Your task to perform on an android device: check the backup settings in the google photos Image 0: 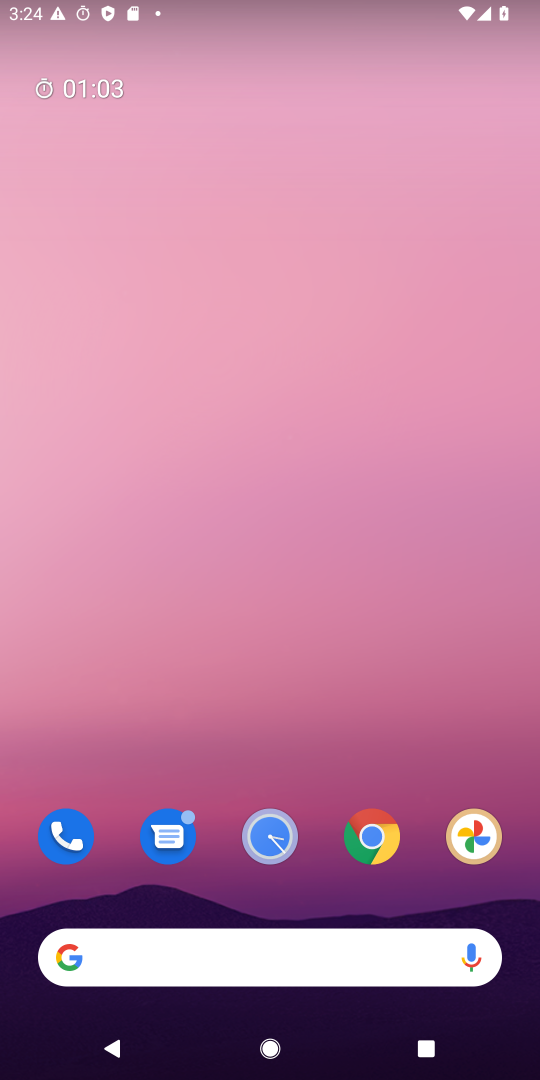
Step 0: drag from (220, 866) to (217, 31)
Your task to perform on an android device: check the backup settings in the google photos Image 1: 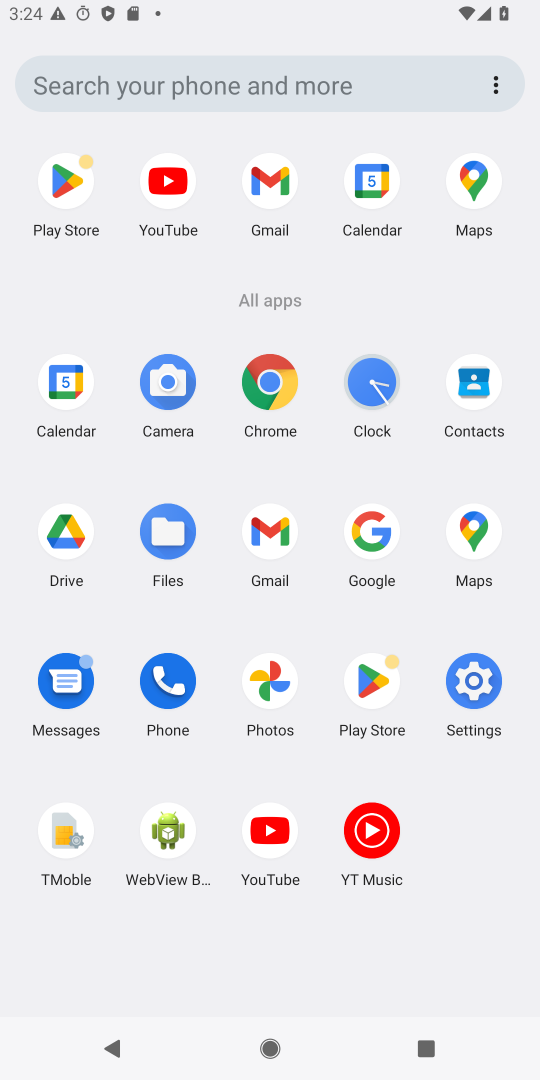
Step 1: click (268, 702)
Your task to perform on an android device: check the backup settings in the google photos Image 2: 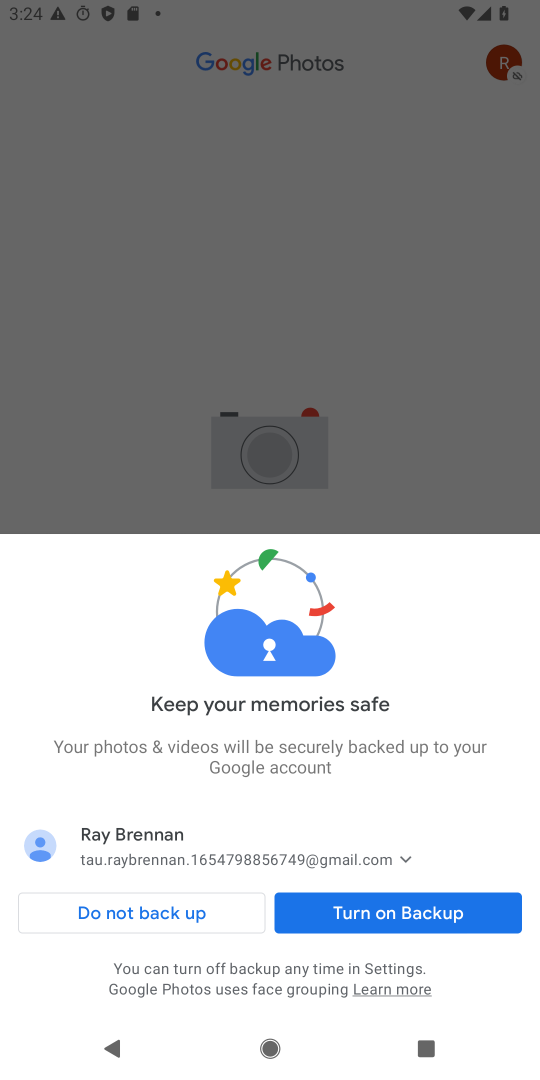
Step 2: click (341, 916)
Your task to perform on an android device: check the backup settings in the google photos Image 3: 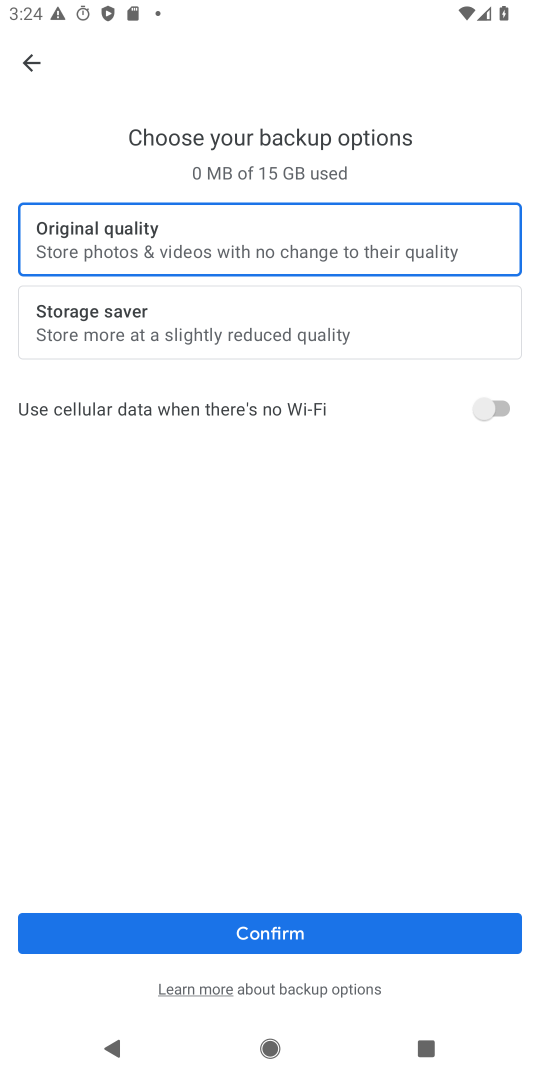
Step 3: click (315, 941)
Your task to perform on an android device: check the backup settings in the google photos Image 4: 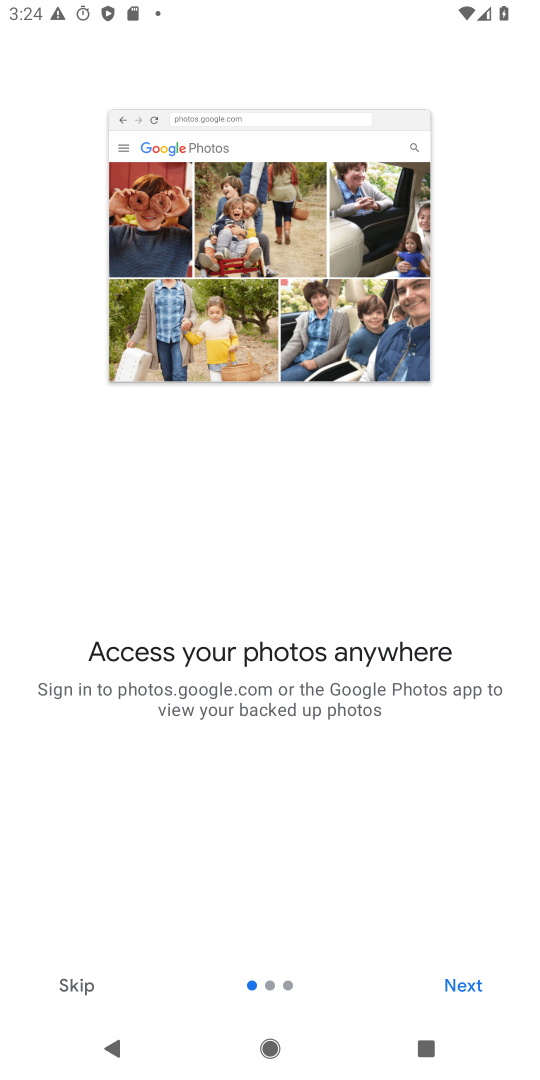
Step 4: click (459, 977)
Your task to perform on an android device: check the backup settings in the google photos Image 5: 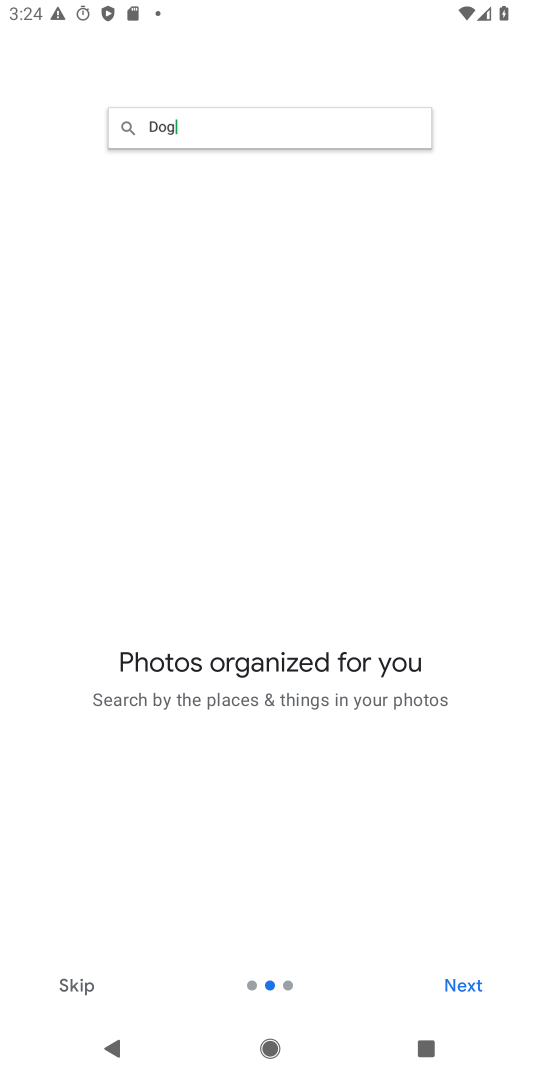
Step 5: click (459, 977)
Your task to perform on an android device: check the backup settings in the google photos Image 6: 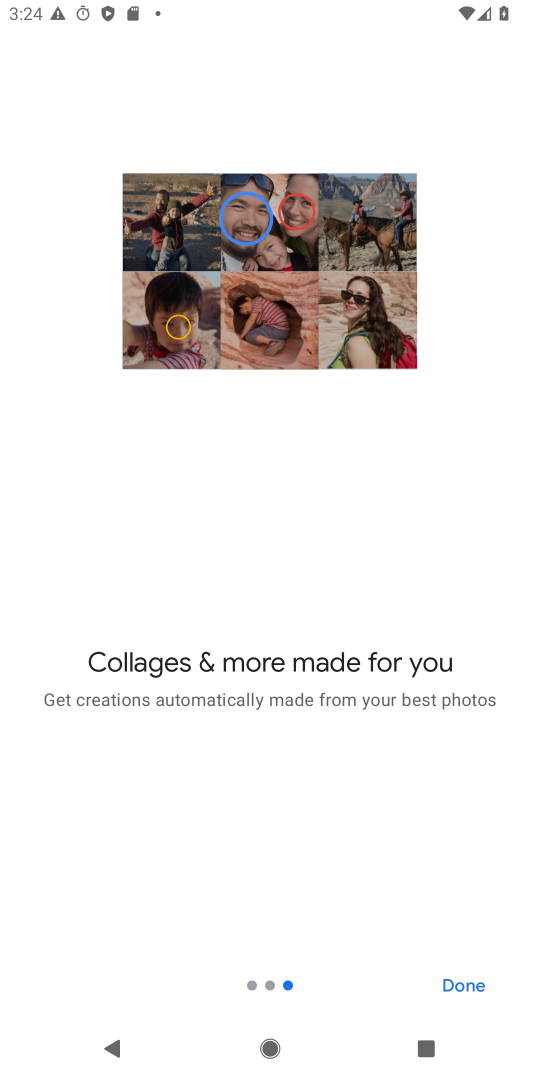
Step 6: click (459, 977)
Your task to perform on an android device: check the backup settings in the google photos Image 7: 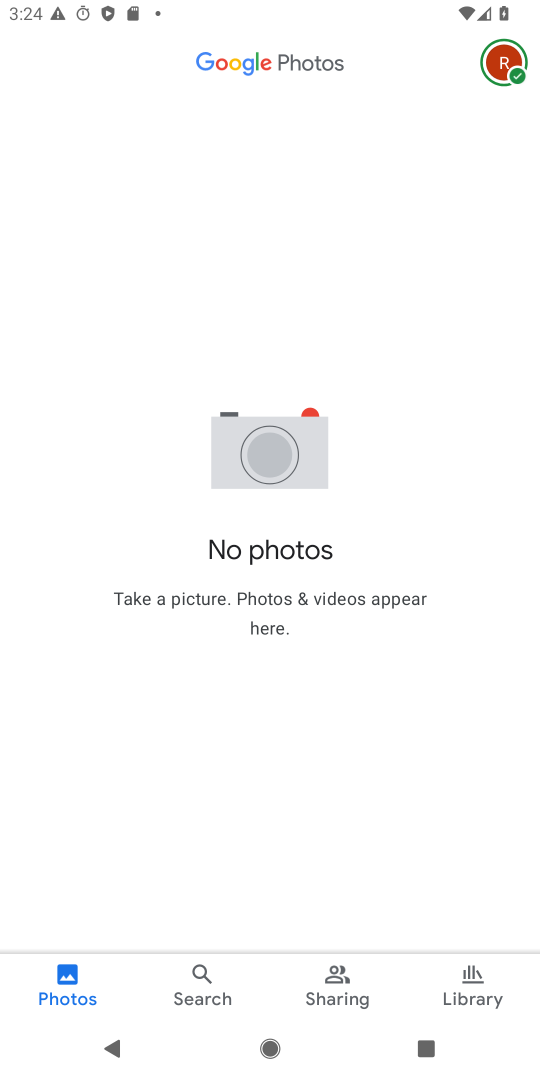
Step 7: task complete